Your task to perform on an android device: Go to display settings Image 0: 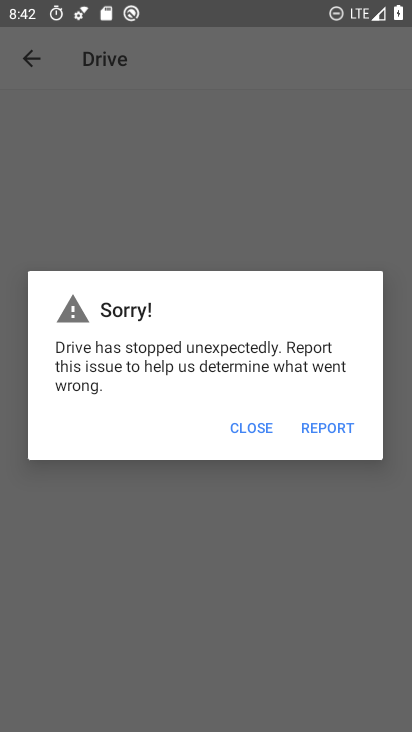
Step 0: press home button
Your task to perform on an android device: Go to display settings Image 1: 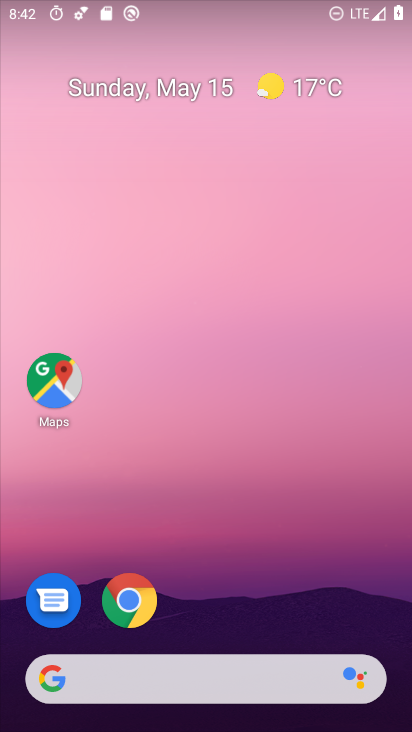
Step 1: drag from (263, 584) to (200, 93)
Your task to perform on an android device: Go to display settings Image 2: 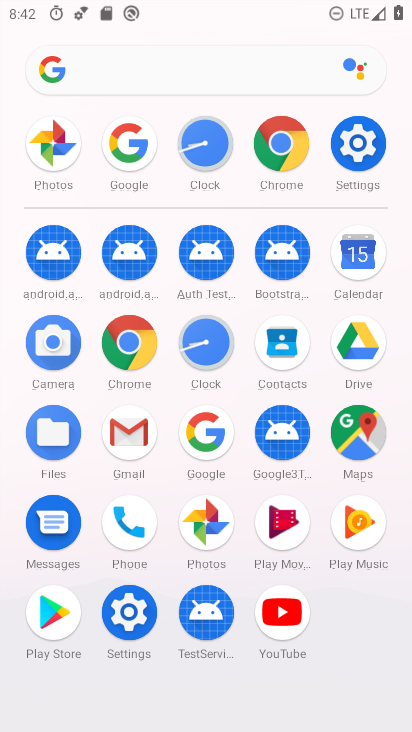
Step 2: click (356, 143)
Your task to perform on an android device: Go to display settings Image 3: 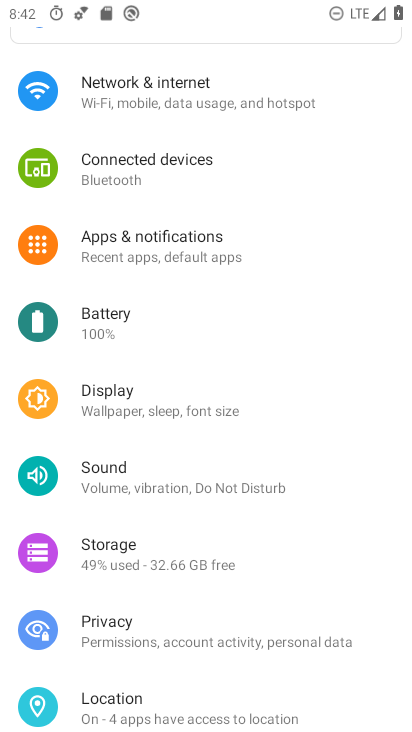
Step 3: click (147, 412)
Your task to perform on an android device: Go to display settings Image 4: 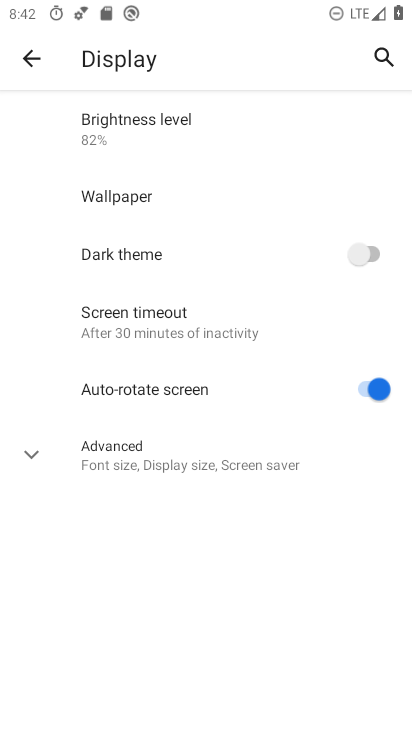
Step 4: task complete